Your task to perform on an android device: turn off location Image 0: 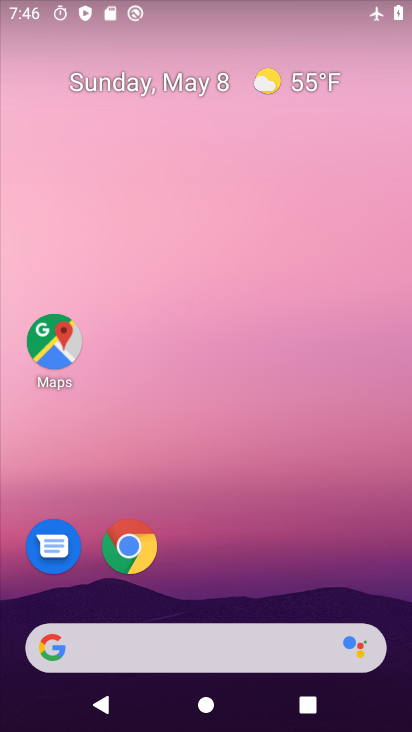
Step 0: drag from (307, 515) to (347, 0)
Your task to perform on an android device: turn off location Image 1: 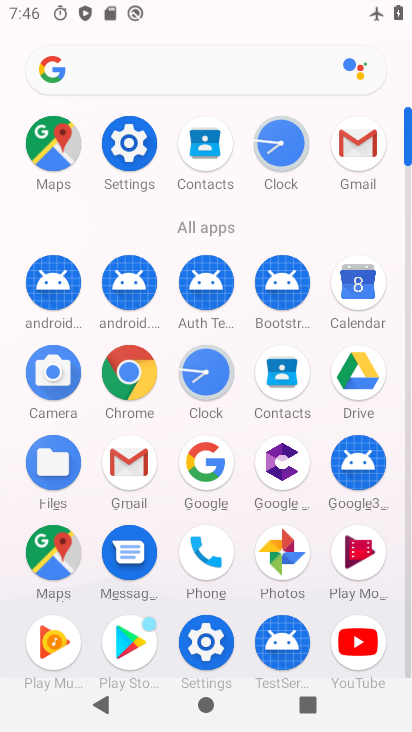
Step 1: click (136, 151)
Your task to perform on an android device: turn off location Image 2: 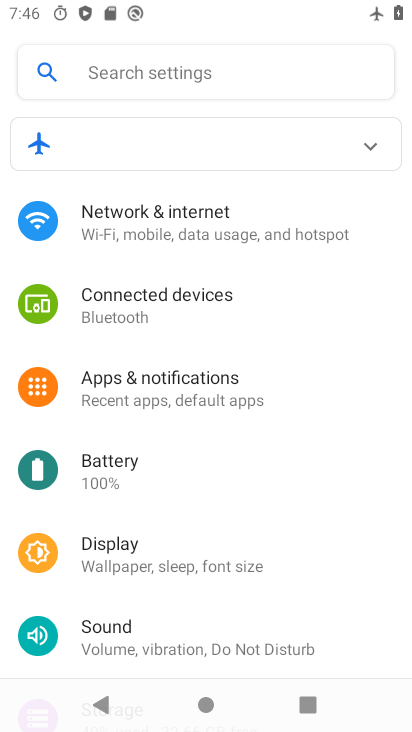
Step 2: drag from (145, 483) to (164, 235)
Your task to perform on an android device: turn off location Image 3: 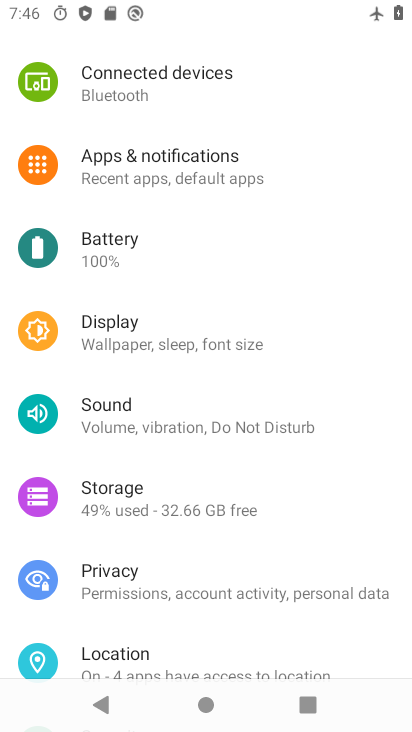
Step 3: click (169, 641)
Your task to perform on an android device: turn off location Image 4: 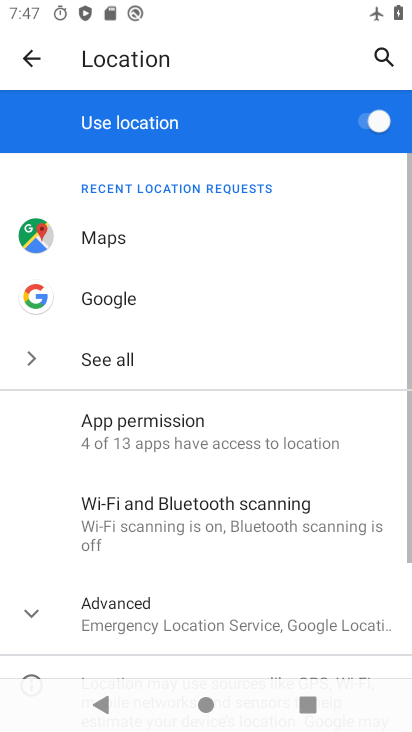
Step 4: click (365, 118)
Your task to perform on an android device: turn off location Image 5: 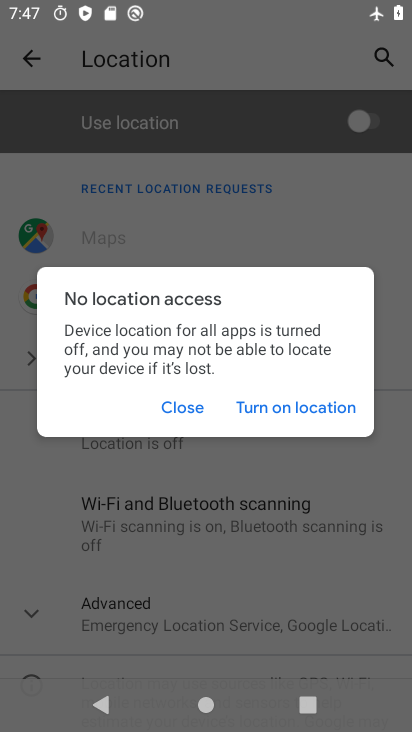
Step 5: task complete